Your task to perform on an android device: check battery use Image 0: 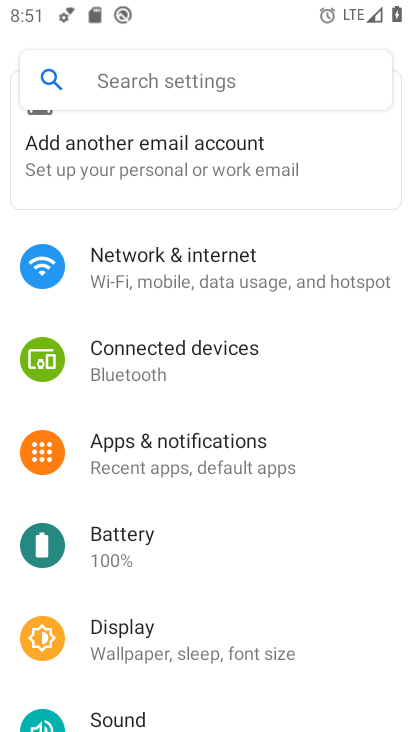
Step 0: click (172, 542)
Your task to perform on an android device: check battery use Image 1: 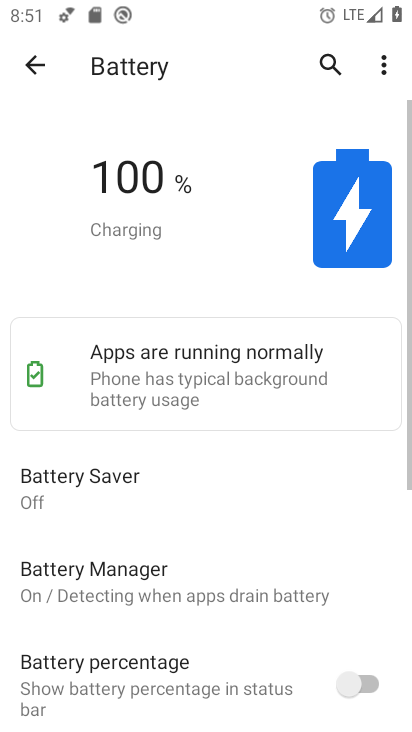
Step 1: click (387, 66)
Your task to perform on an android device: check battery use Image 2: 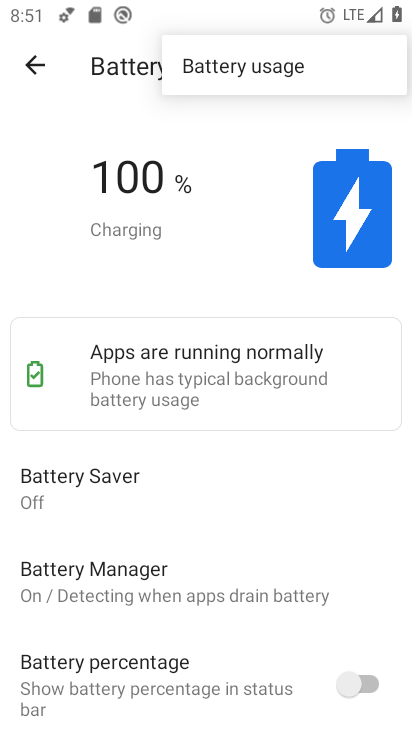
Step 2: click (325, 74)
Your task to perform on an android device: check battery use Image 3: 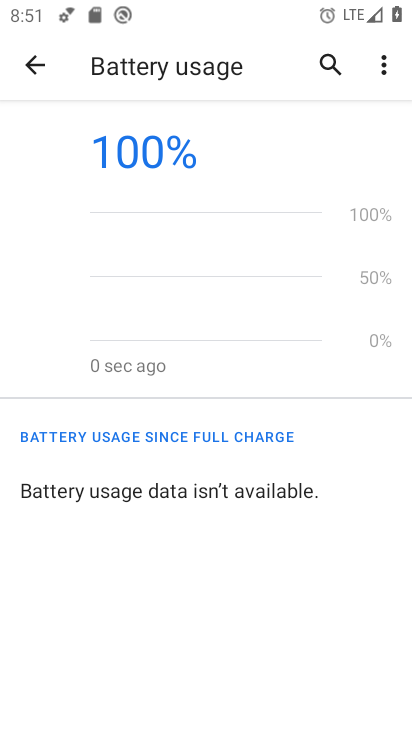
Step 3: task complete